Your task to perform on an android device: toggle sleep mode Image 0: 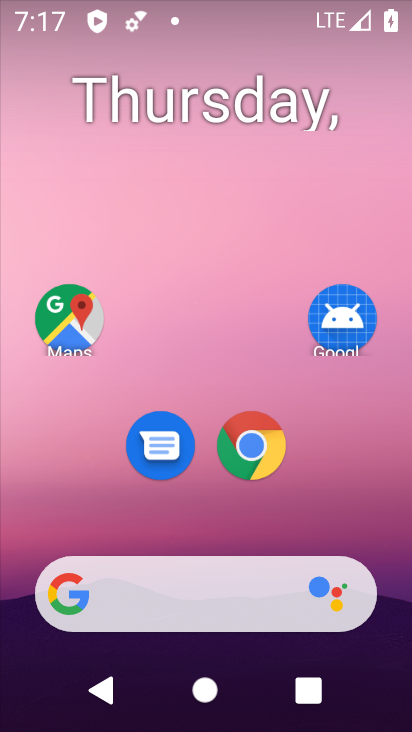
Step 0: drag from (349, 523) to (149, 11)
Your task to perform on an android device: toggle sleep mode Image 1: 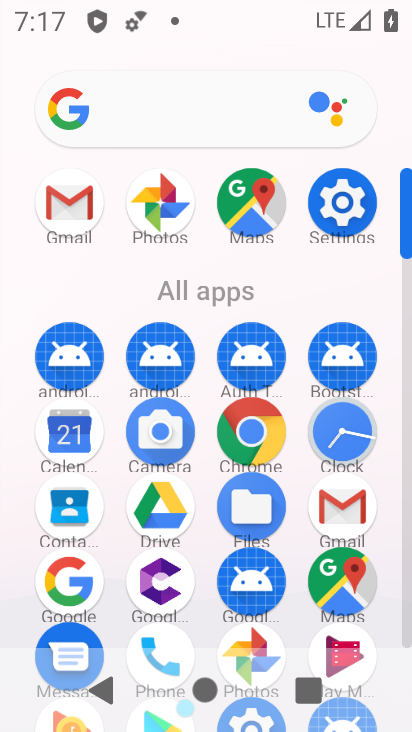
Step 1: click (343, 211)
Your task to perform on an android device: toggle sleep mode Image 2: 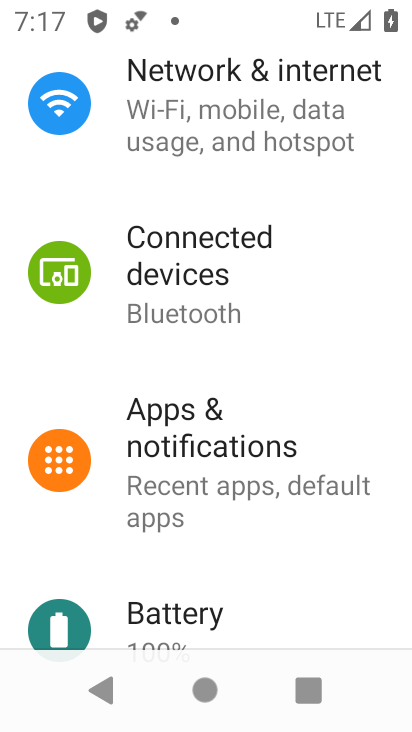
Step 2: task complete